Your task to perform on an android device: clear all cookies in the chrome app Image 0: 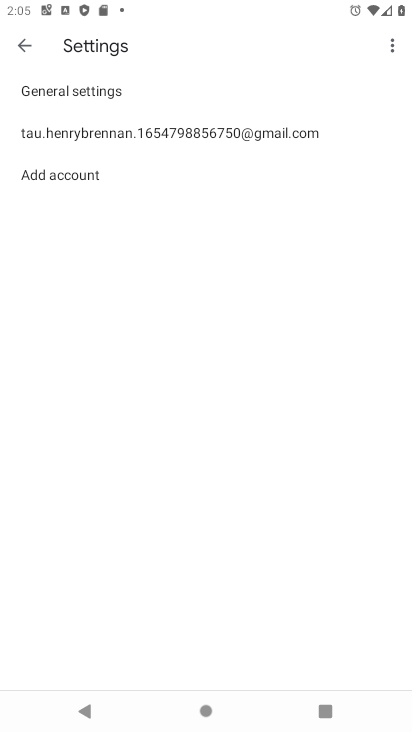
Step 0: press home button
Your task to perform on an android device: clear all cookies in the chrome app Image 1: 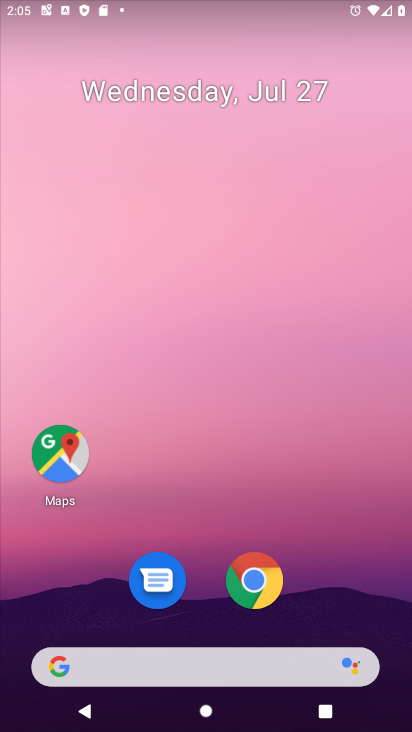
Step 1: click (236, 581)
Your task to perform on an android device: clear all cookies in the chrome app Image 2: 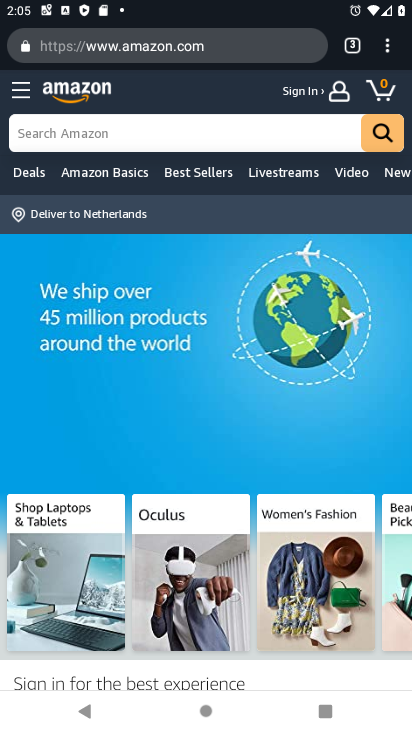
Step 2: click (385, 52)
Your task to perform on an android device: clear all cookies in the chrome app Image 3: 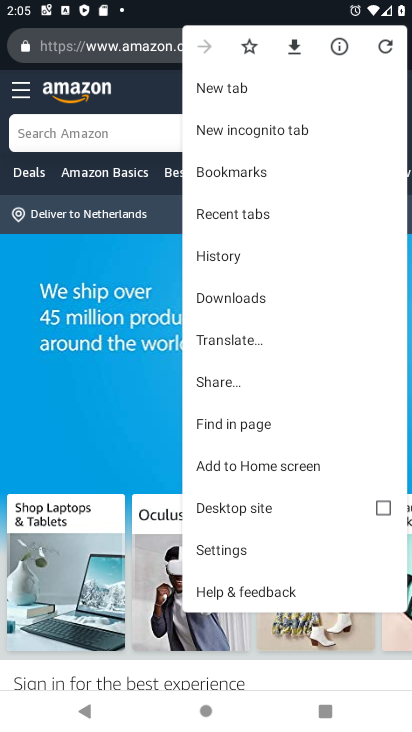
Step 3: click (235, 260)
Your task to perform on an android device: clear all cookies in the chrome app Image 4: 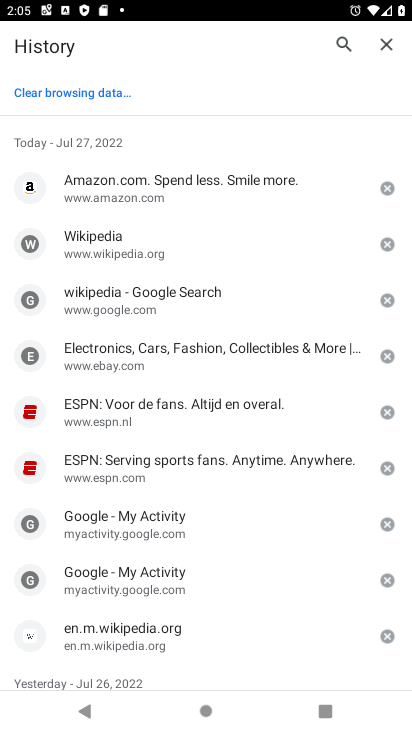
Step 4: click (69, 99)
Your task to perform on an android device: clear all cookies in the chrome app Image 5: 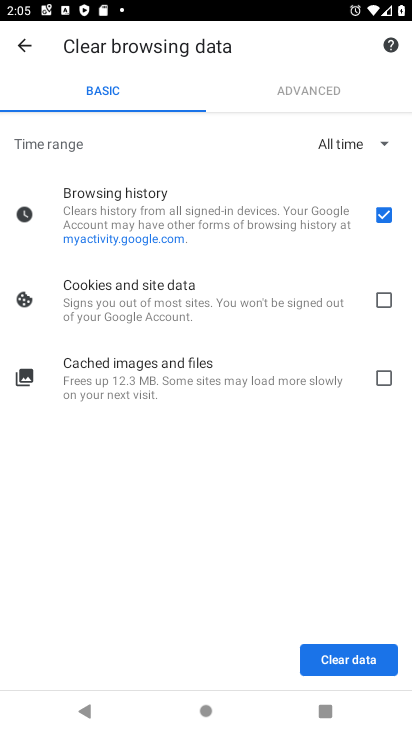
Step 5: click (383, 291)
Your task to perform on an android device: clear all cookies in the chrome app Image 6: 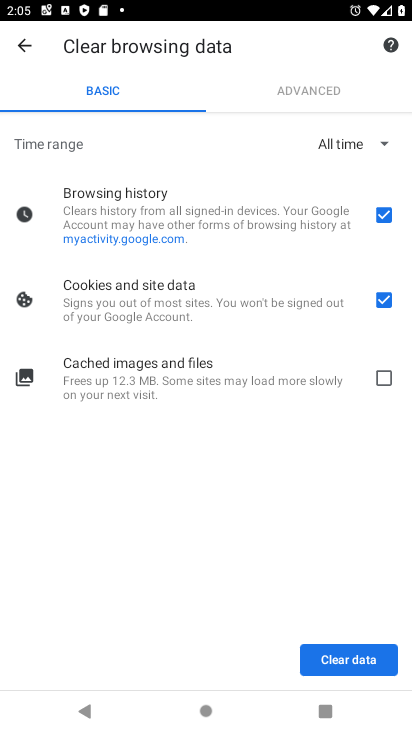
Step 6: click (359, 663)
Your task to perform on an android device: clear all cookies in the chrome app Image 7: 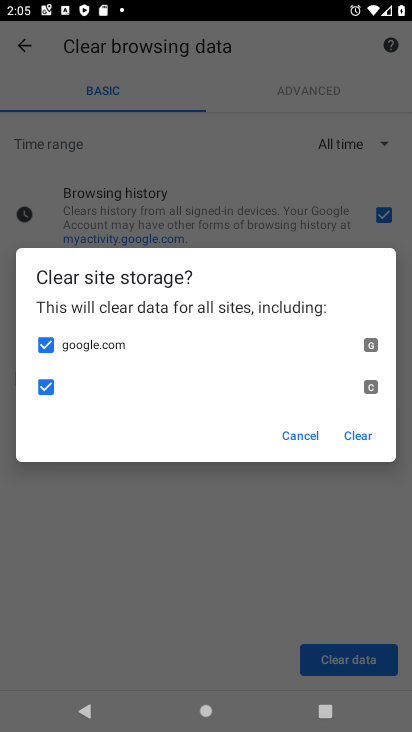
Step 7: click (355, 433)
Your task to perform on an android device: clear all cookies in the chrome app Image 8: 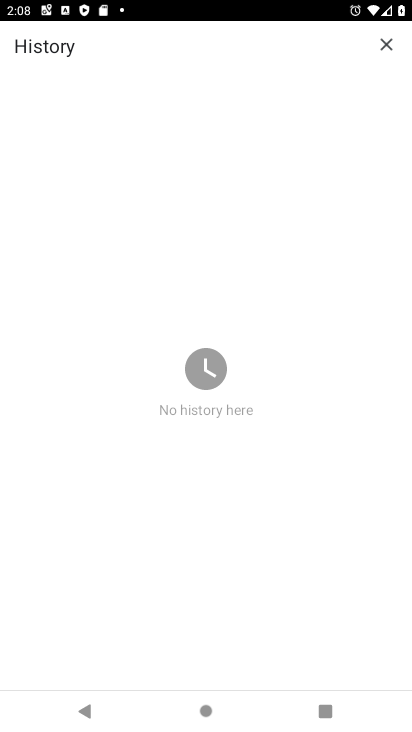
Step 8: task complete